Your task to perform on an android device: Show the shopping cart on costco. Image 0: 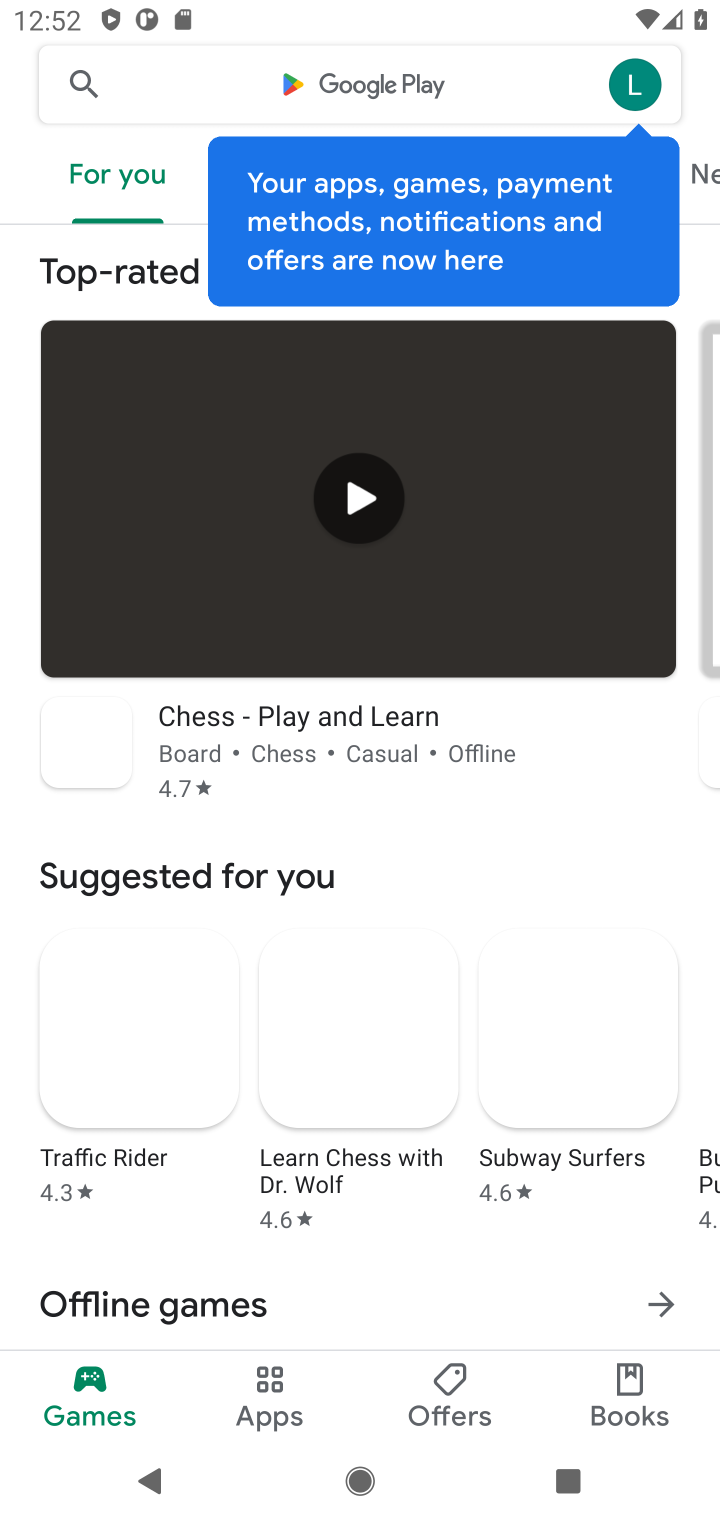
Step 0: press home button
Your task to perform on an android device: Show the shopping cart on costco. Image 1: 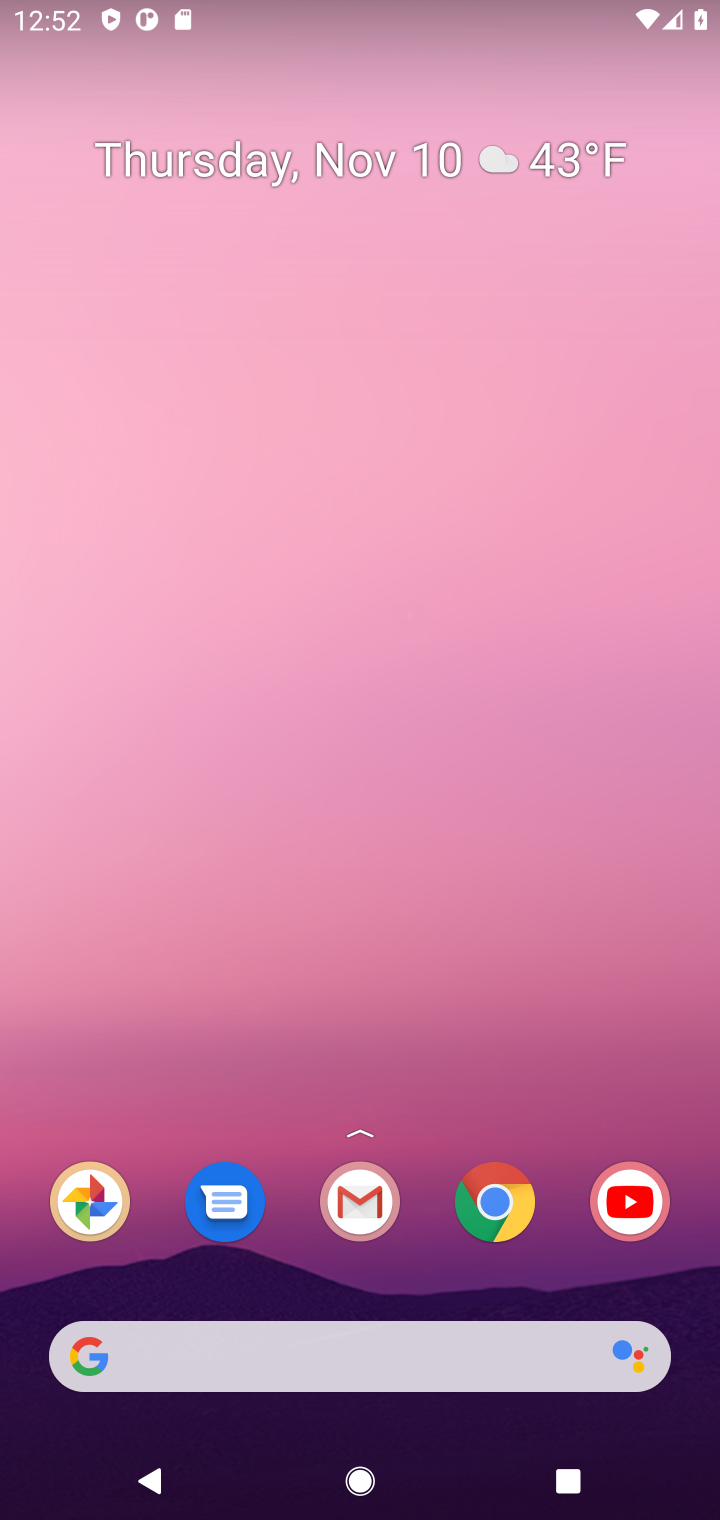
Step 1: click (494, 1203)
Your task to perform on an android device: Show the shopping cart on costco. Image 2: 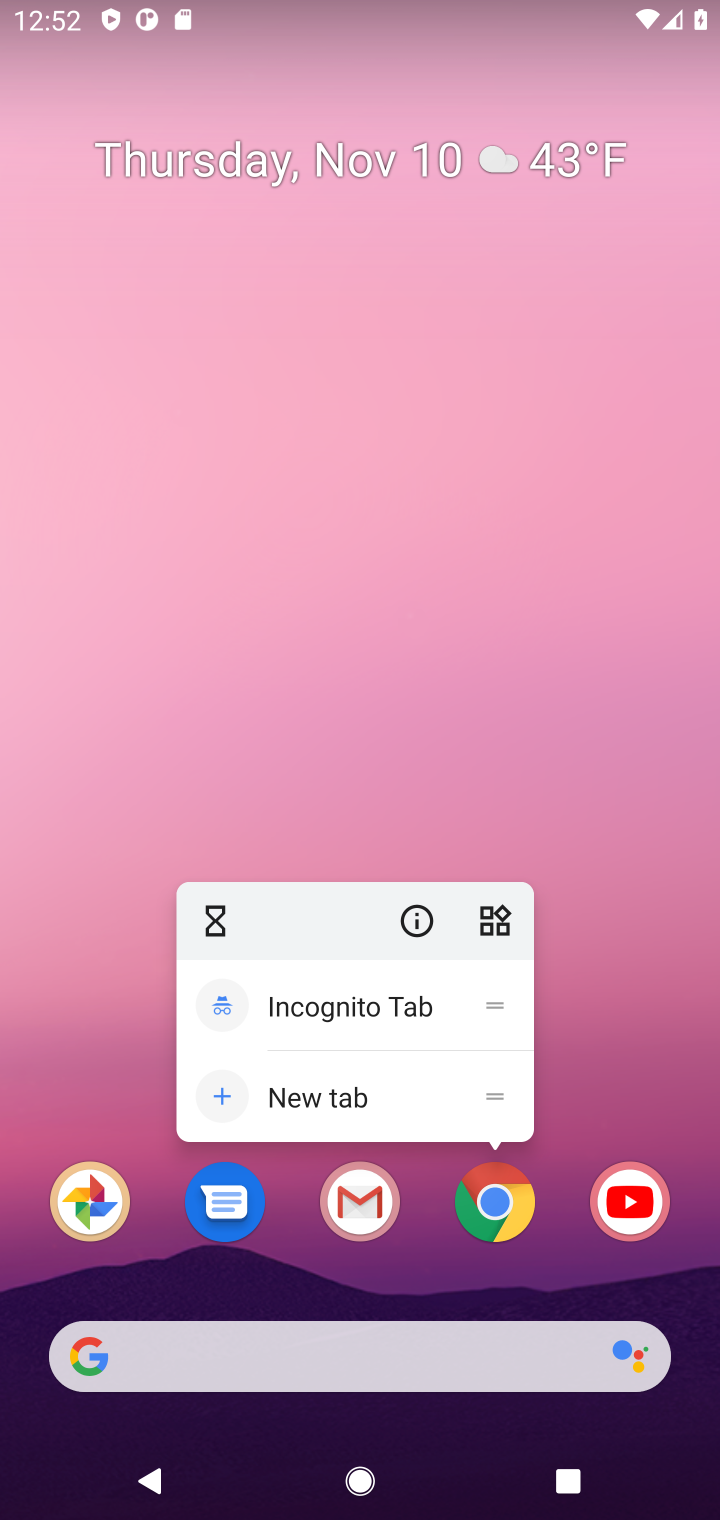
Step 2: click (494, 1203)
Your task to perform on an android device: Show the shopping cart on costco. Image 3: 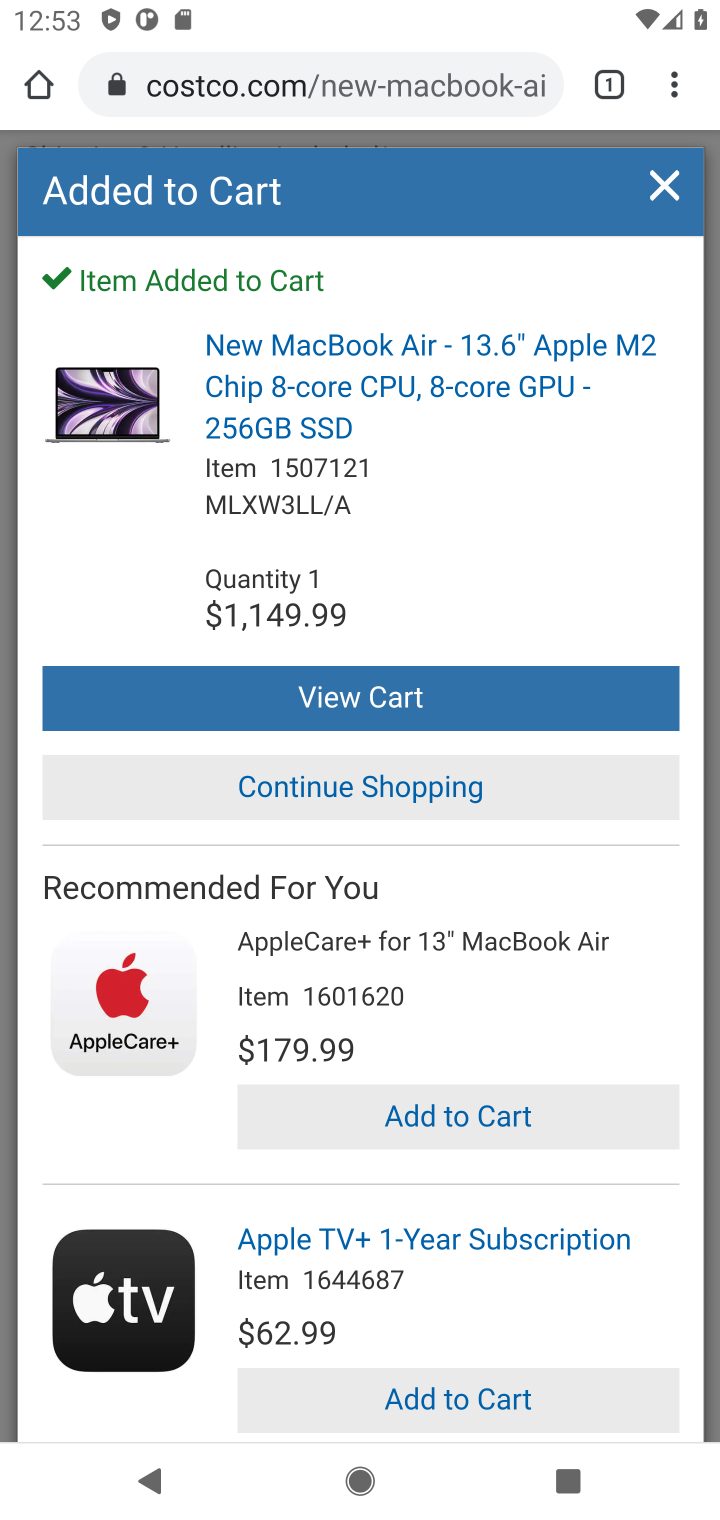
Step 3: task complete